Your task to perform on an android device: turn on location history Image 0: 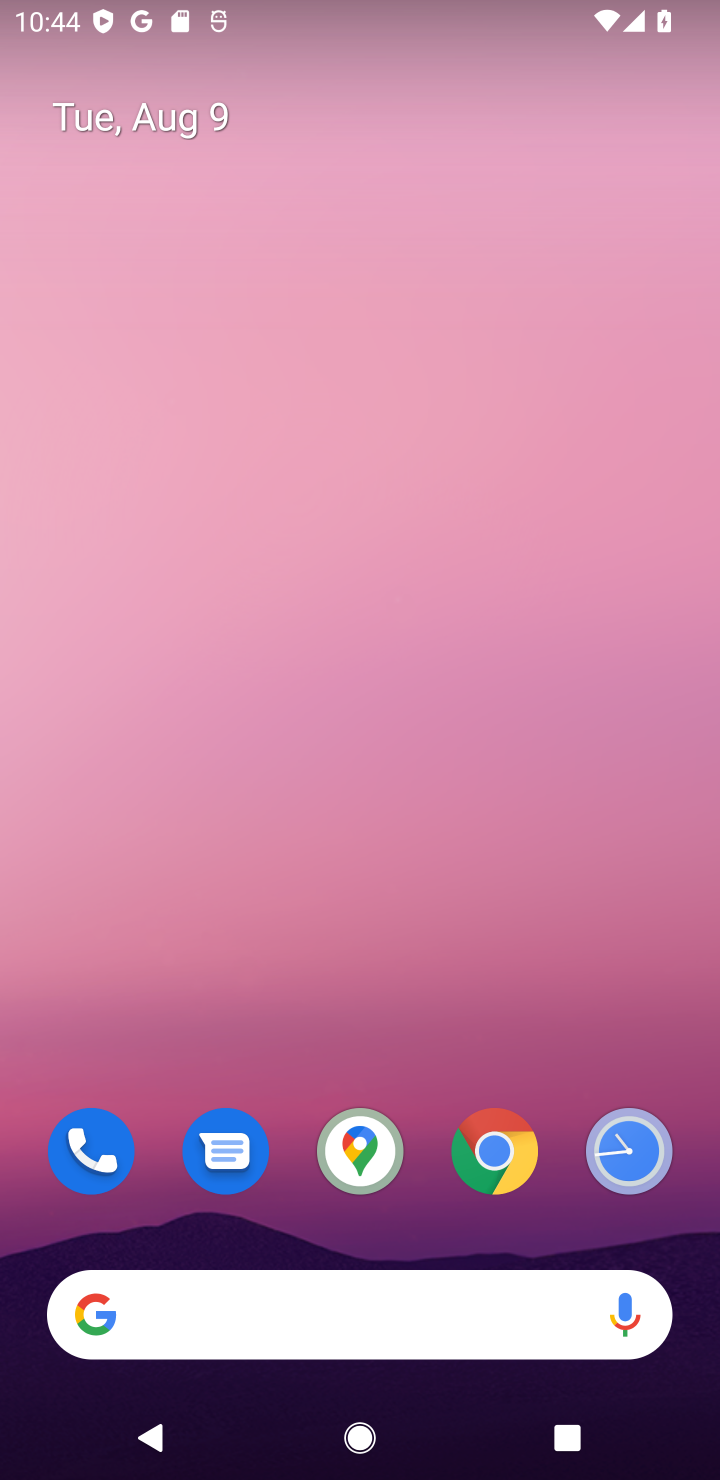
Step 0: drag from (499, 1034) to (601, 73)
Your task to perform on an android device: turn on location history Image 1: 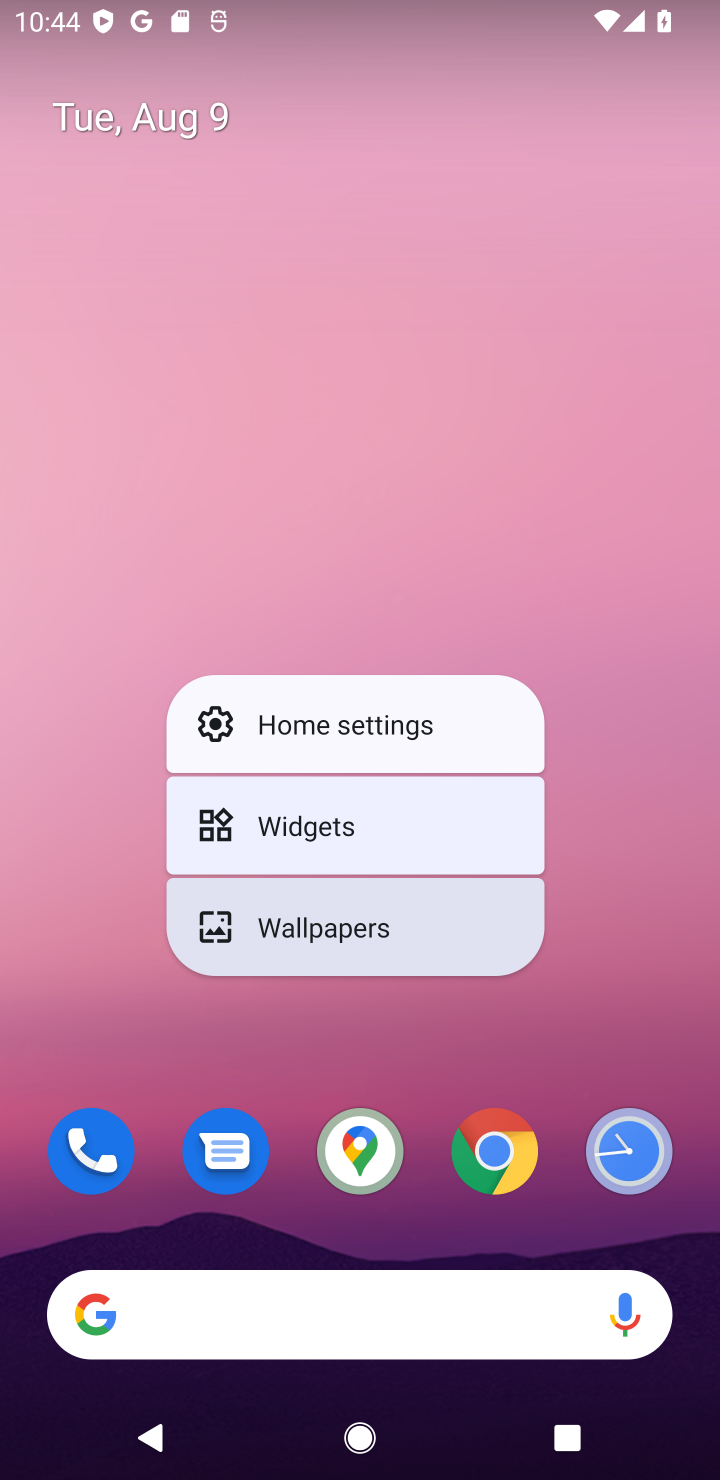
Step 1: click (511, 598)
Your task to perform on an android device: turn on location history Image 2: 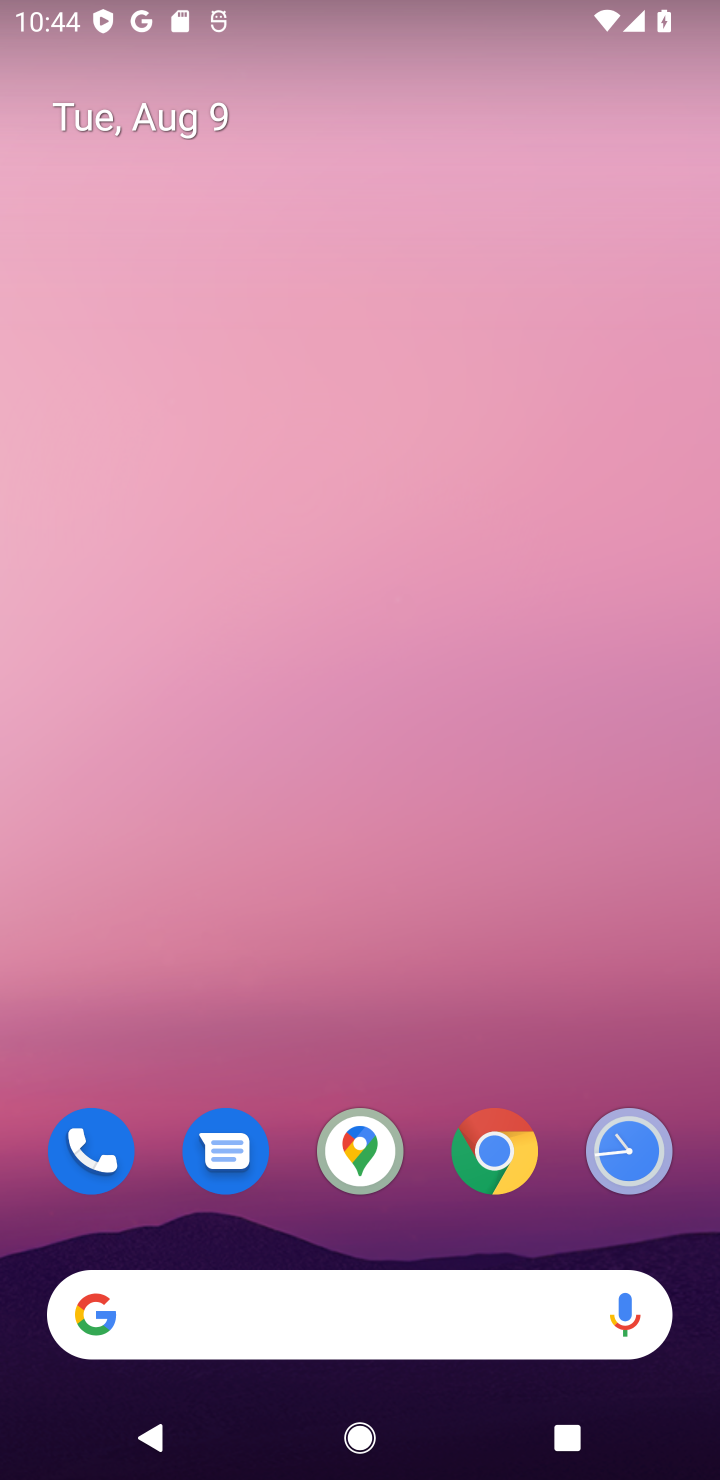
Step 2: drag from (491, 1030) to (400, 292)
Your task to perform on an android device: turn on location history Image 3: 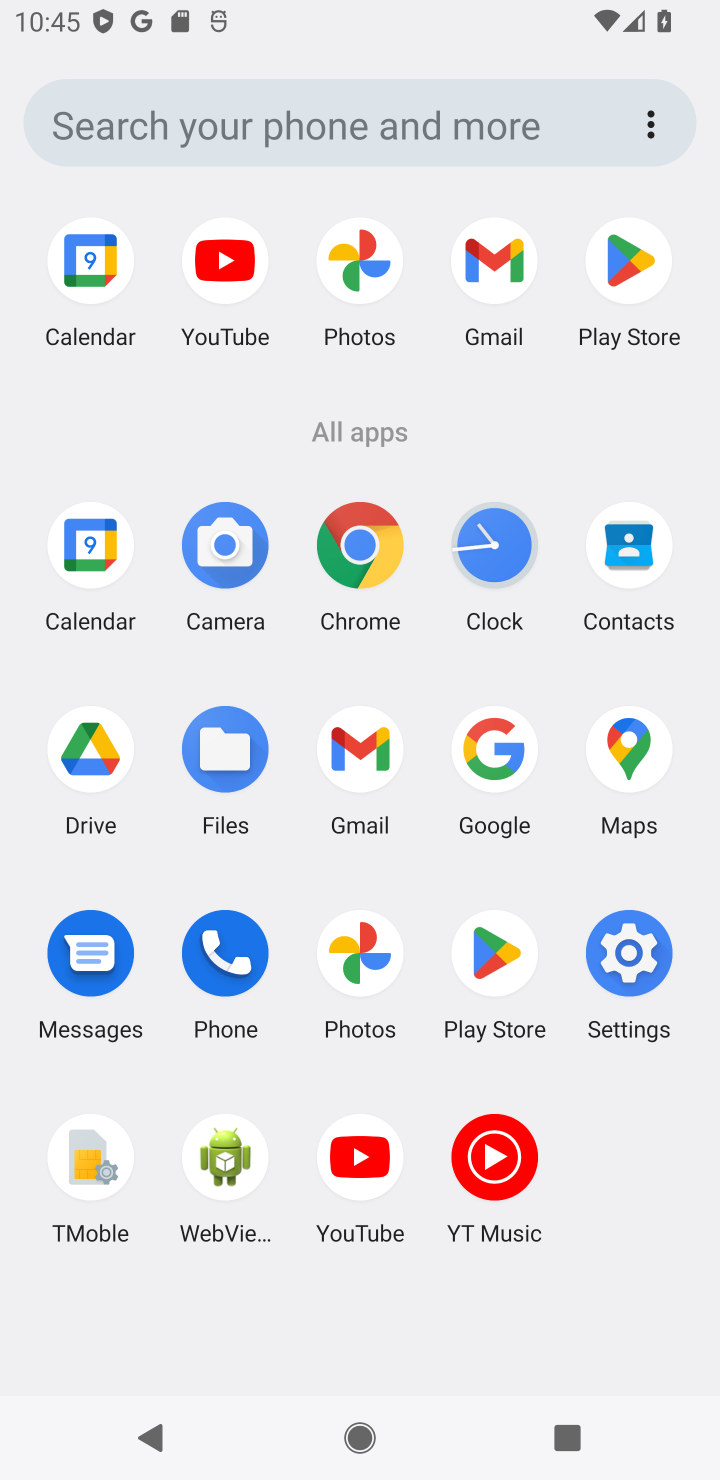
Step 3: click (619, 933)
Your task to perform on an android device: turn on location history Image 4: 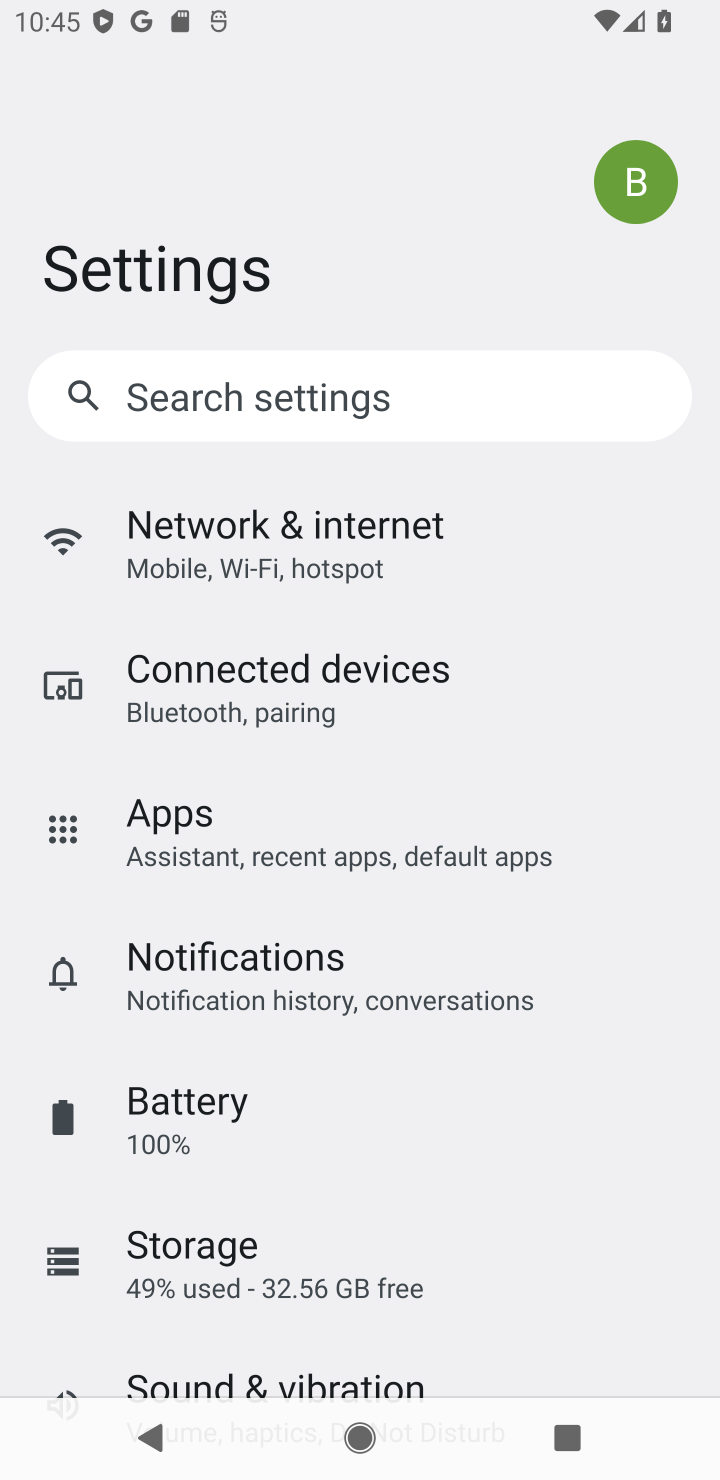
Step 4: drag from (473, 1288) to (238, 857)
Your task to perform on an android device: turn on location history Image 5: 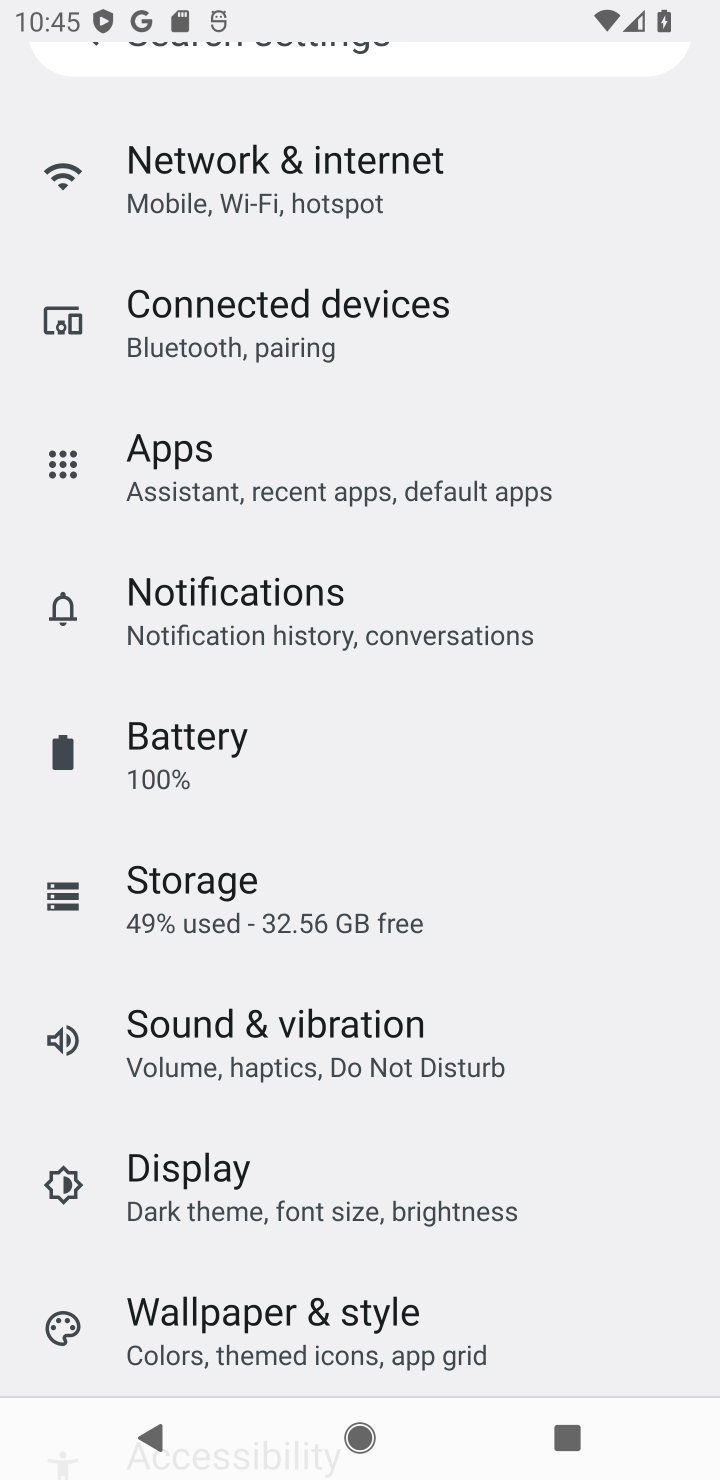
Step 5: drag from (457, 1181) to (218, 393)
Your task to perform on an android device: turn on location history Image 6: 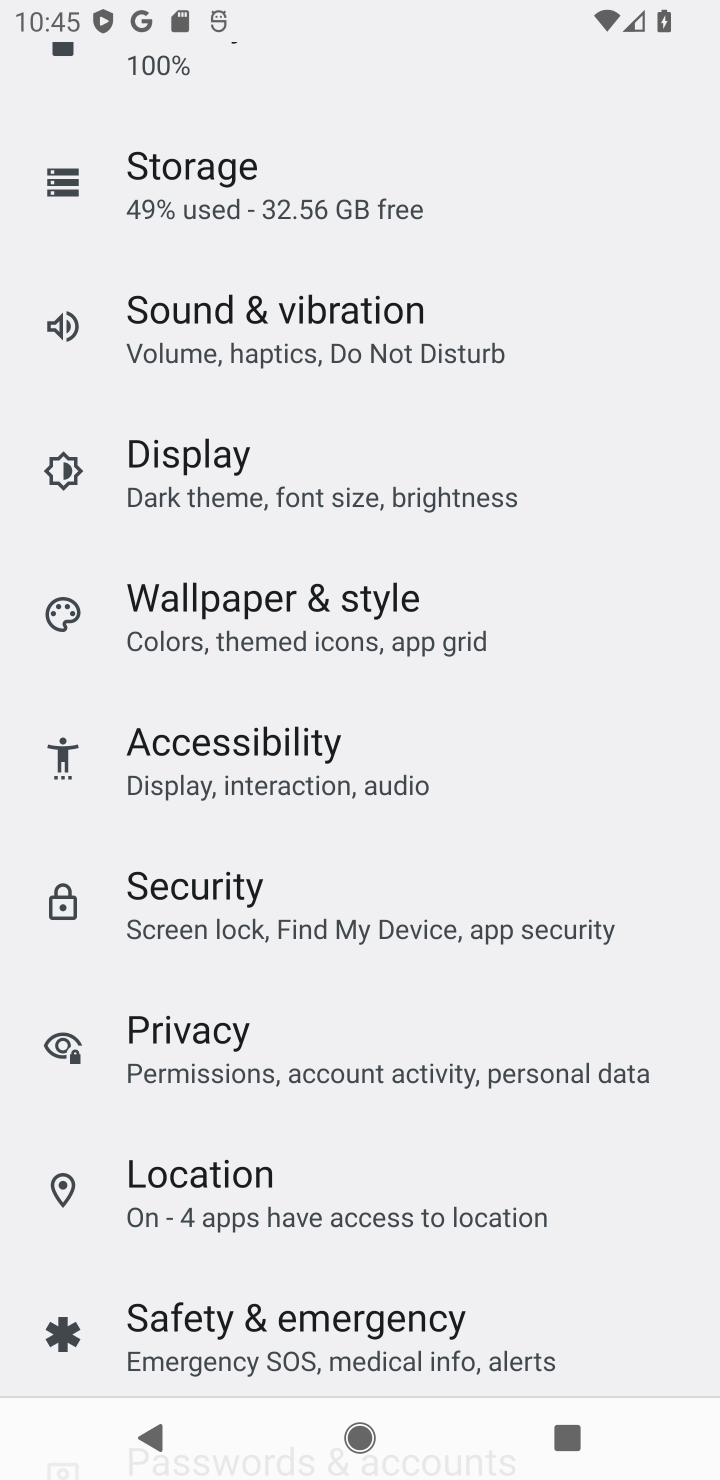
Step 6: click (349, 1208)
Your task to perform on an android device: turn on location history Image 7: 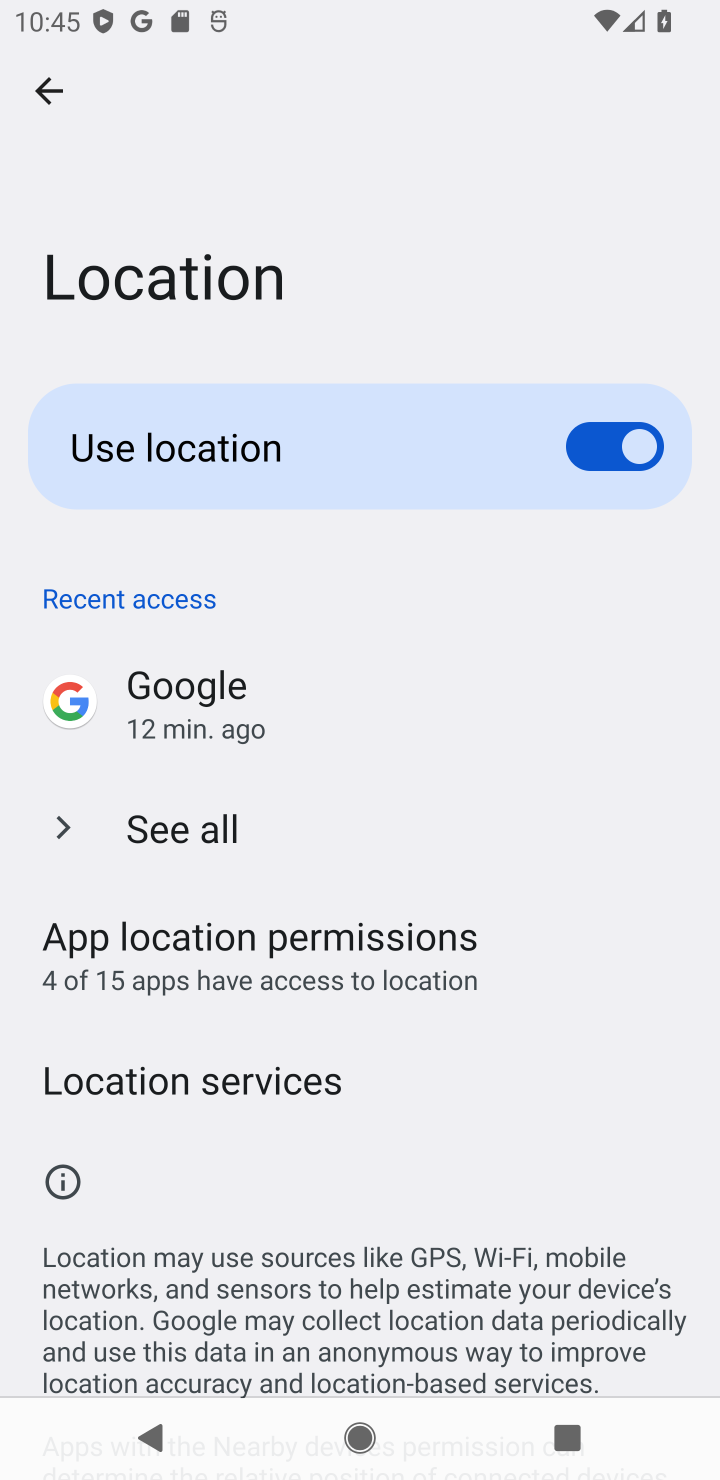
Step 7: click (340, 1074)
Your task to perform on an android device: turn on location history Image 8: 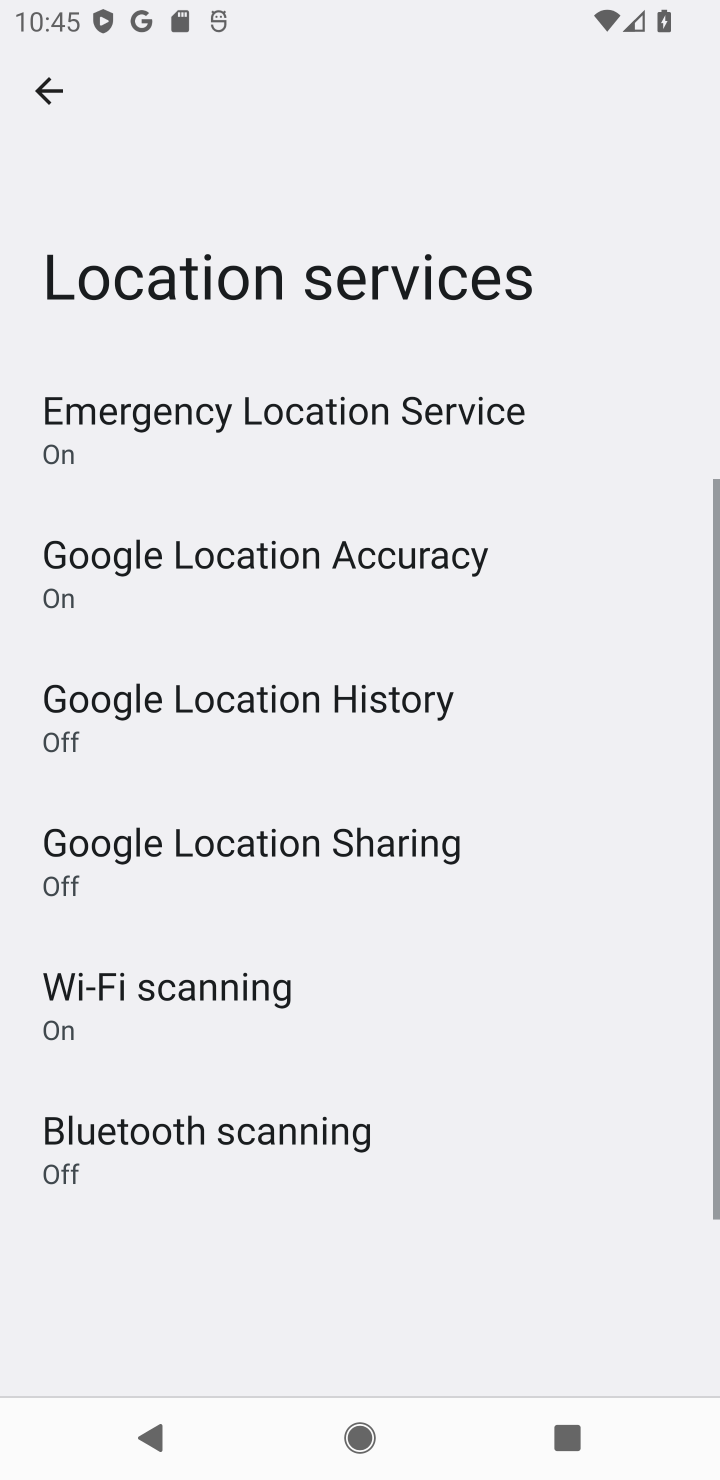
Step 8: click (391, 694)
Your task to perform on an android device: turn on location history Image 9: 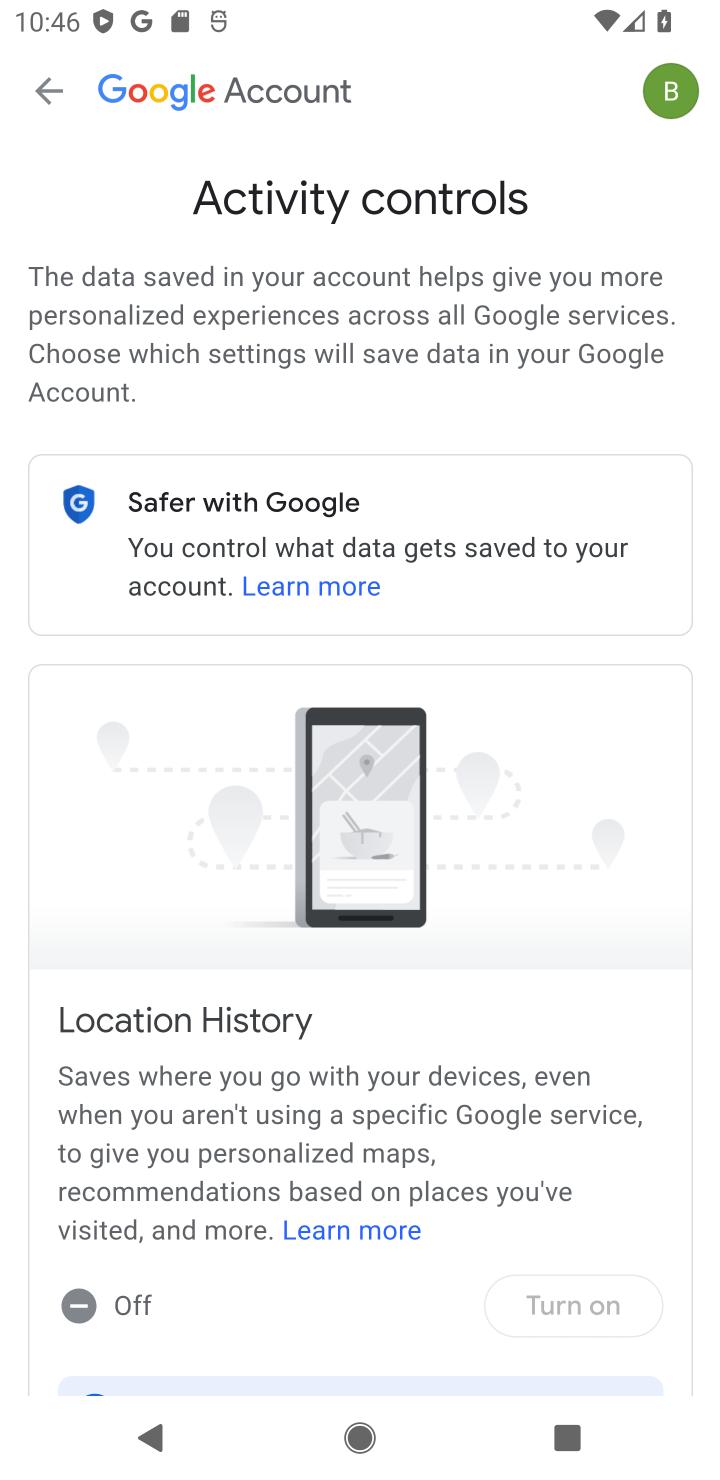
Step 9: task complete